Your task to perform on an android device: set default search engine in the chrome app Image 0: 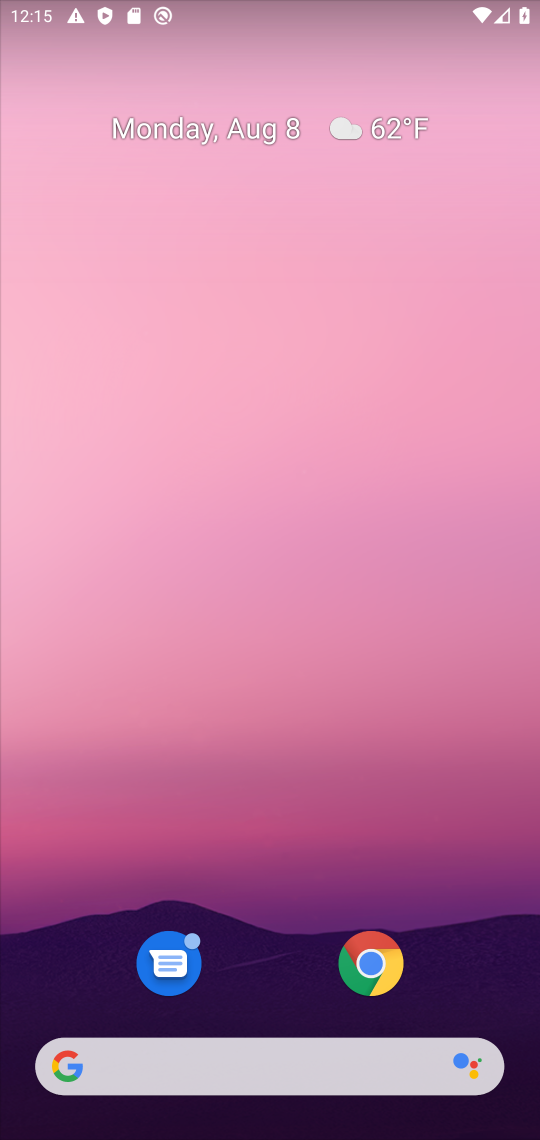
Step 0: drag from (473, 956) to (127, 10)
Your task to perform on an android device: set default search engine in the chrome app Image 1: 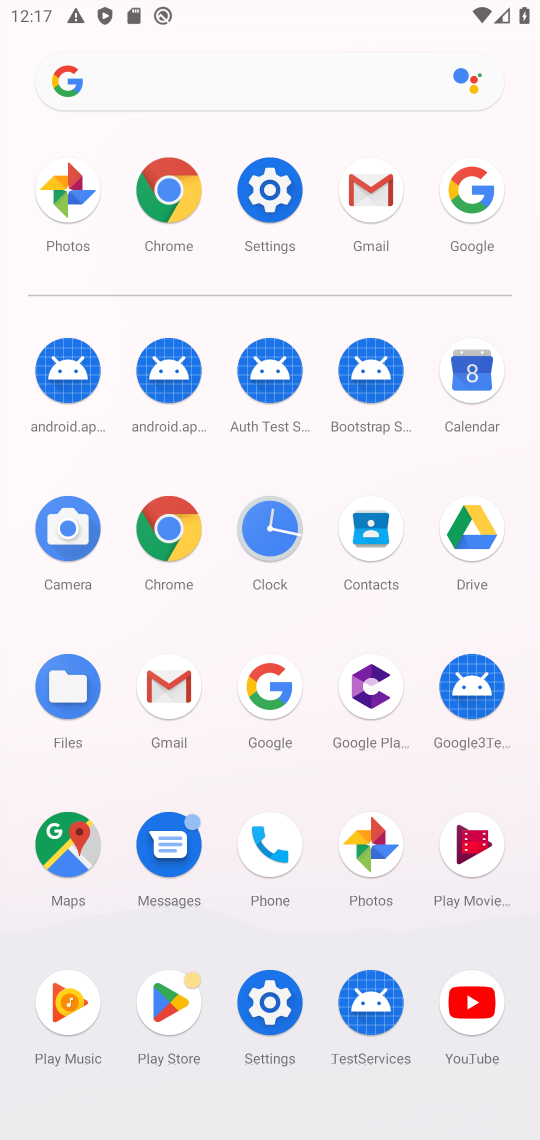
Step 1: click (174, 503)
Your task to perform on an android device: set default search engine in the chrome app Image 2: 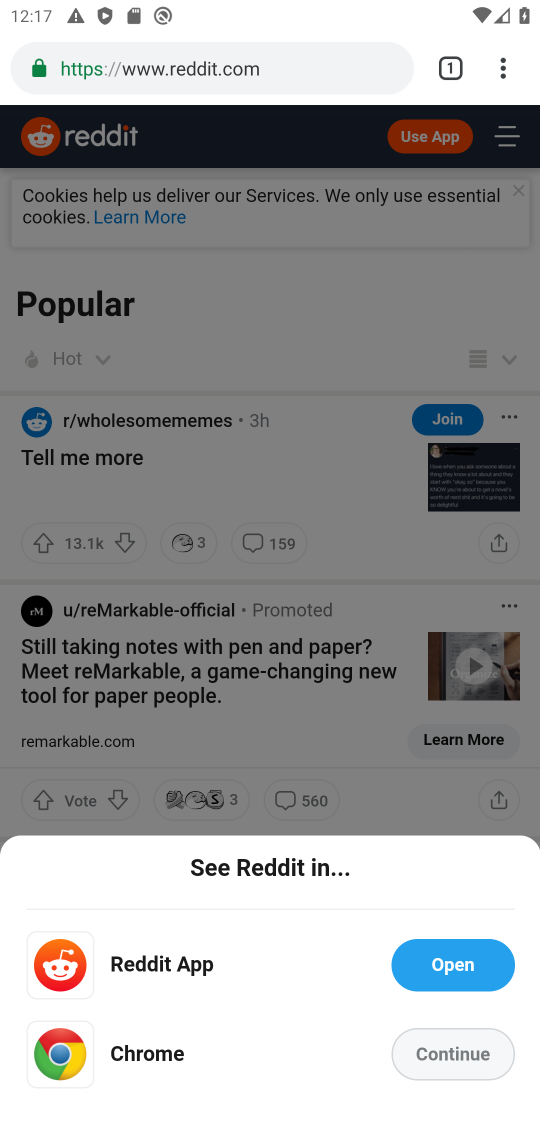
Step 2: click (509, 76)
Your task to perform on an android device: set default search engine in the chrome app Image 3: 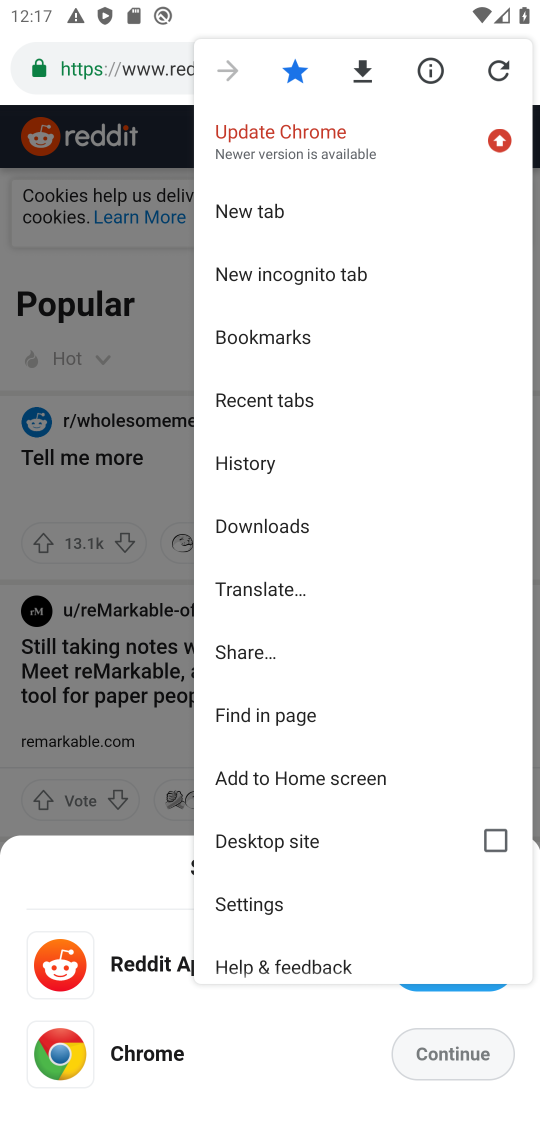
Step 3: click (326, 916)
Your task to perform on an android device: set default search engine in the chrome app Image 4: 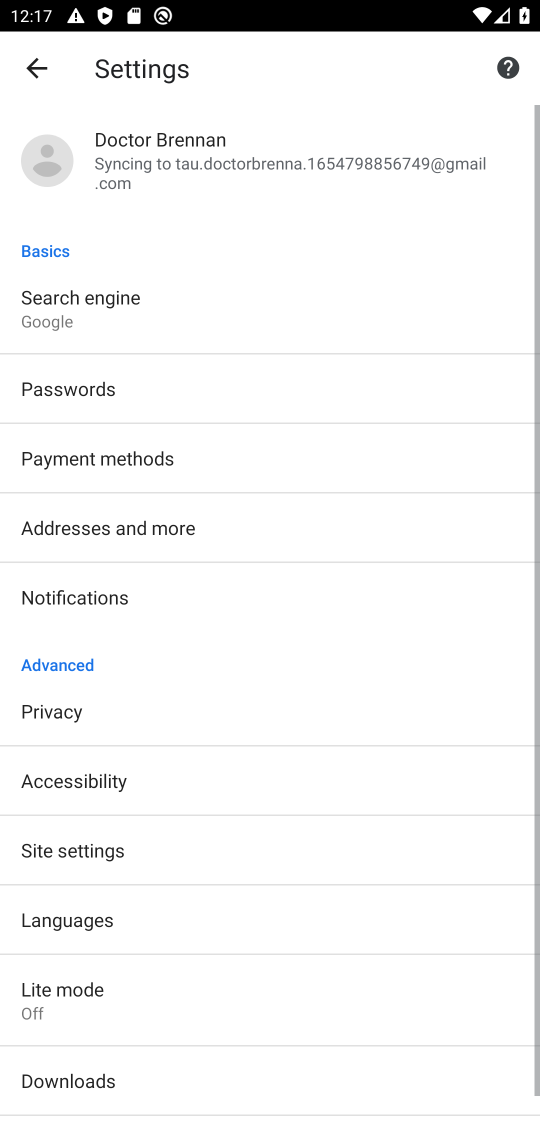
Step 4: click (77, 322)
Your task to perform on an android device: set default search engine in the chrome app Image 5: 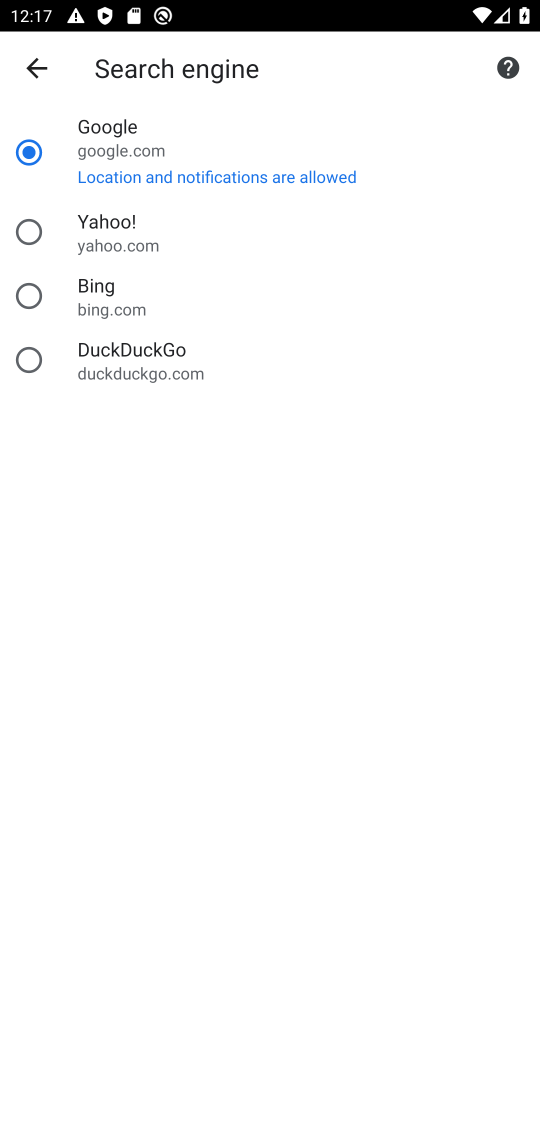
Step 5: click (133, 311)
Your task to perform on an android device: set default search engine in the chrome app Image 6: 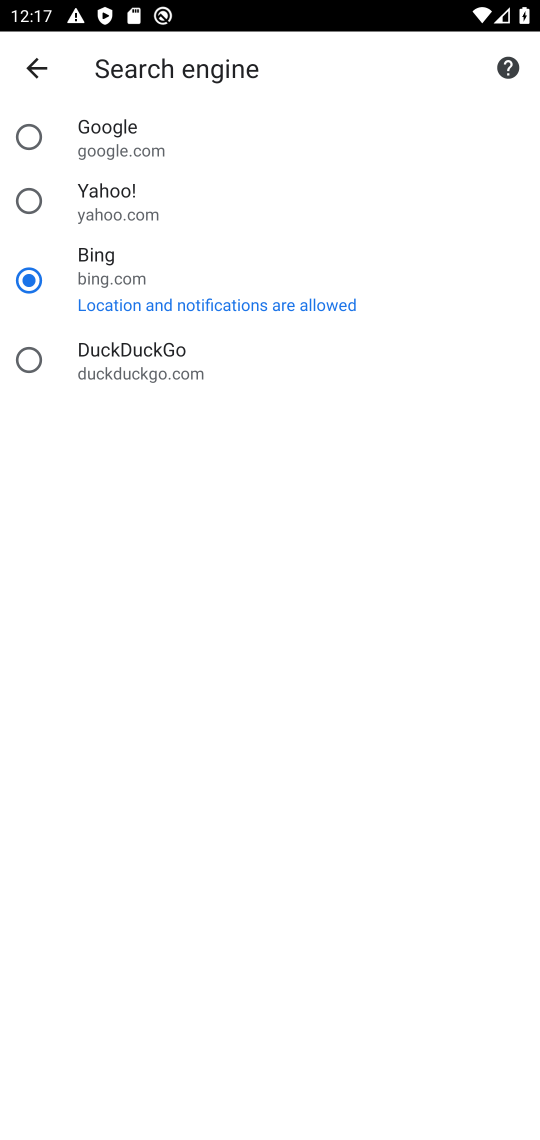
Step 6: task complete